Your task to perform on an android device: allow notifications from all sites in the chrome app Image 0: 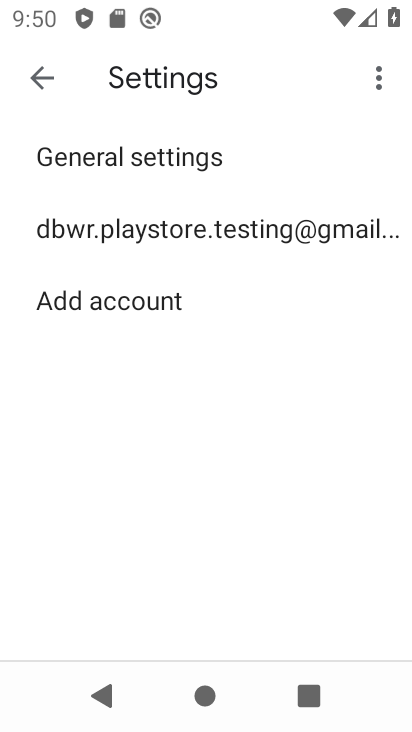
Step 0: press home button
Your task to perform on an android device: allow notifications from all sites in the chrome app Image 1: 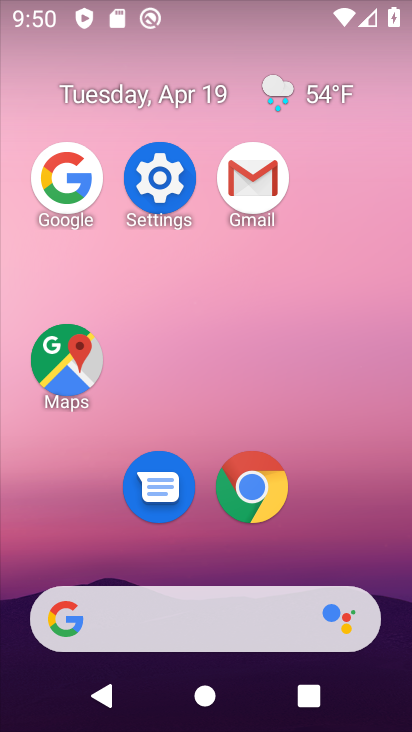
Step 1: click (244, 460)
Your task to perform on an android device: allow notifications from all sites in the chrome app Image 2: 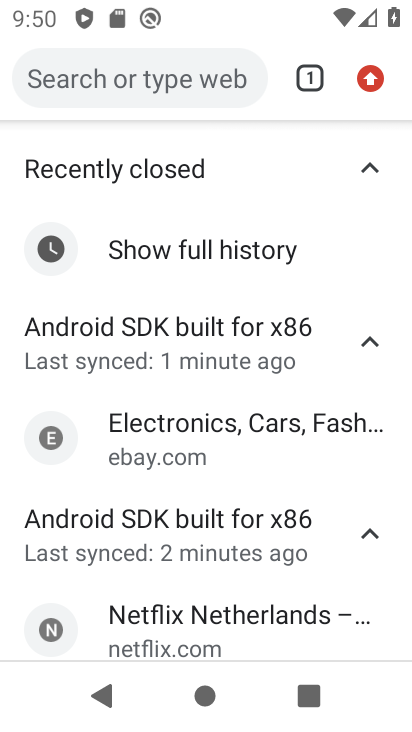
Step 2: click (366, 78)
Your task to perform on an android device: allow notifications from all sites in the chrome app Image 3: 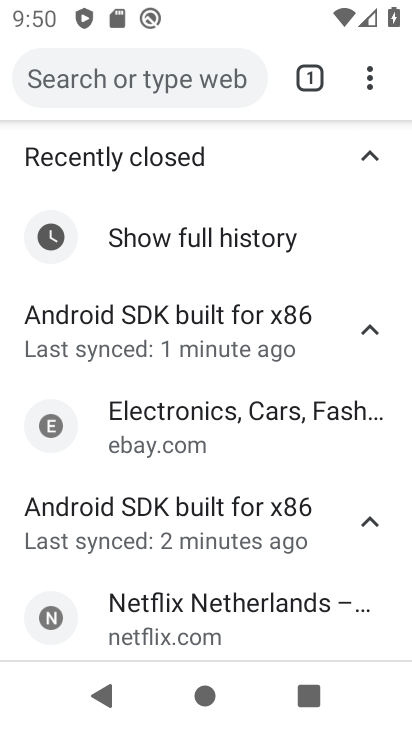
Step 3: click (368, 79)
Your task to perform on an android device: allow notifications from all sites in the chrome app Image 4: 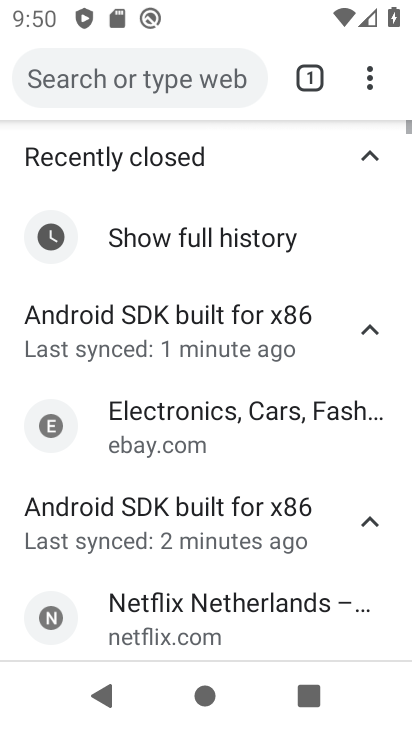
Step 4: click (368, 79)
Your task to perform on an android device: allow notifications from all sites in the chrome app Image 5: 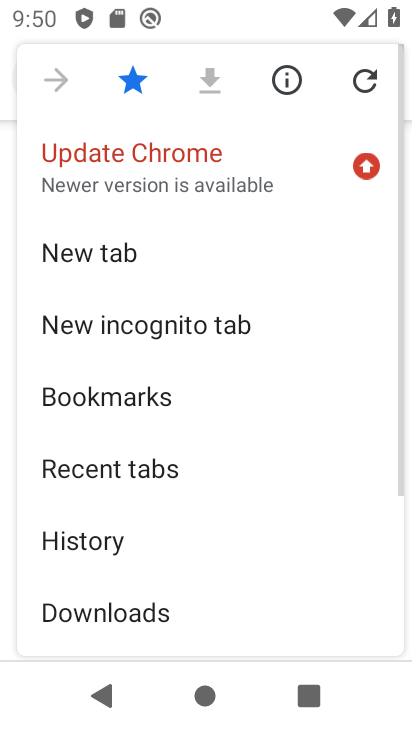
Step 5: drag from (167, 598) to (251, 70)
Your task to perform on an android device: allow notifications from all sites in the chrome app Image 6: 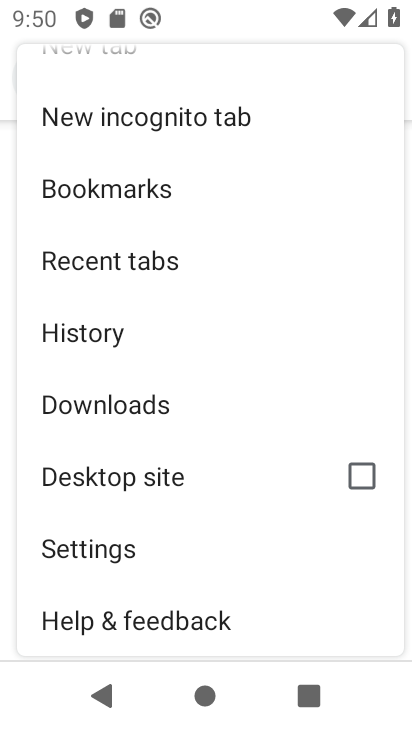
Step 6: click (145, 560)
Your task to perform on an android device: allow notifications from all sites in the chrome app Image 7: 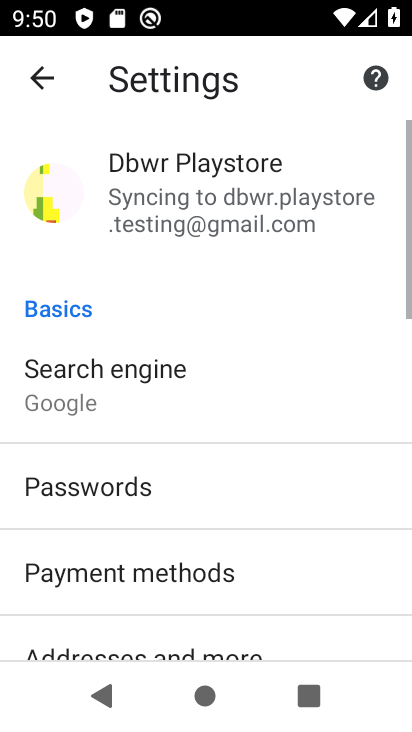
Step 7: drag from (145, 558) to (184, 146)
Your task to perform on an android device: allow notifications from all sites in the chrome app Image 8: 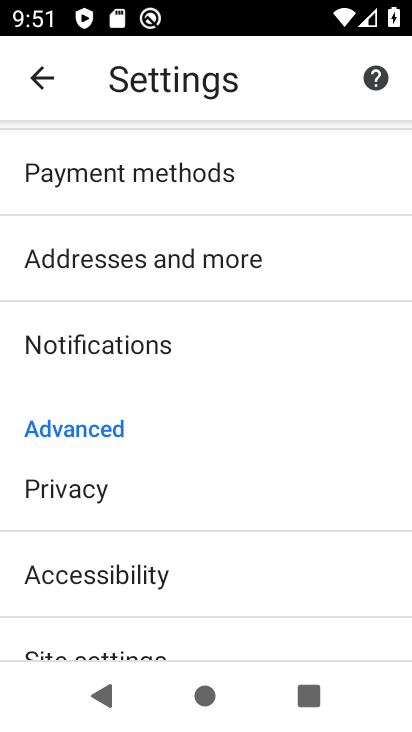
Step 8: click (181, 347)
Your task to perform on an android device: allow notifications from all sites in the chrome app Image 9: 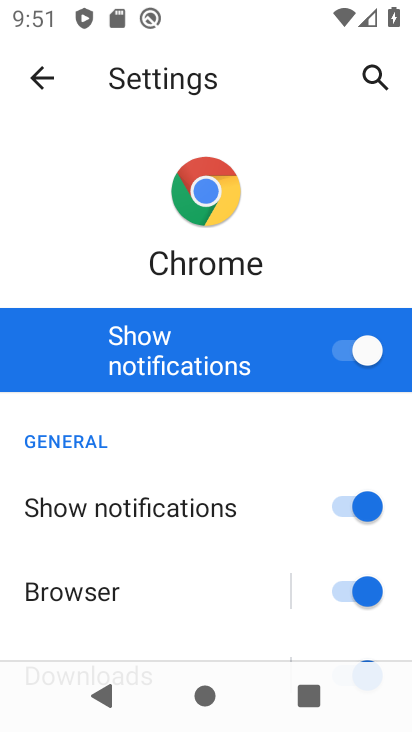
Step 9: task complete